Your task to perform on an android device: turn notification dots off Image 0: 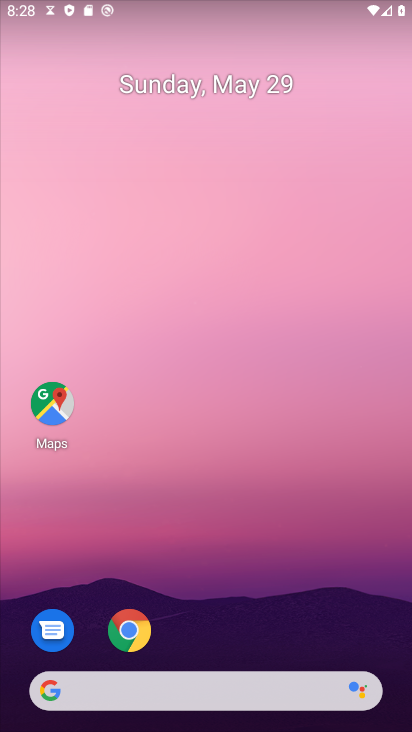
Step 0: drag from (238, 647) to (288, 57)
Your task to perform on an android device: turn notification dots off Image 1: 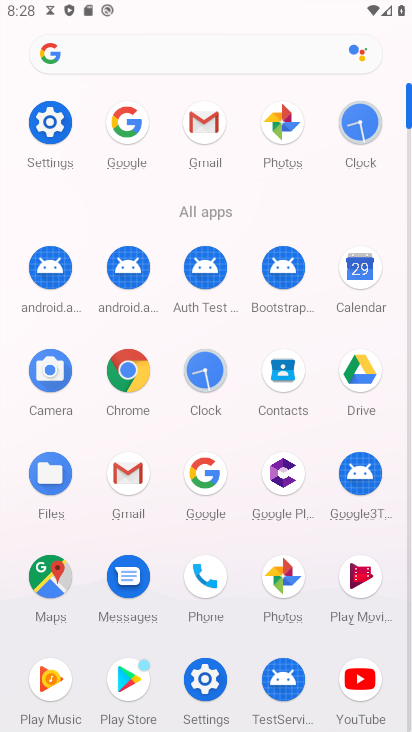
Step 1: click (53, 127)
Your task to perform on an android device: turn notification dots off Image 2: 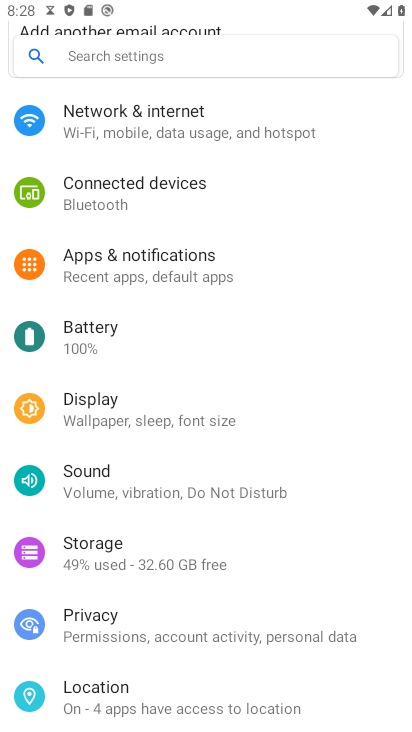
Step 2: click (112, 255)
Your task to perform on an android device: turn notification dots off Image 3: 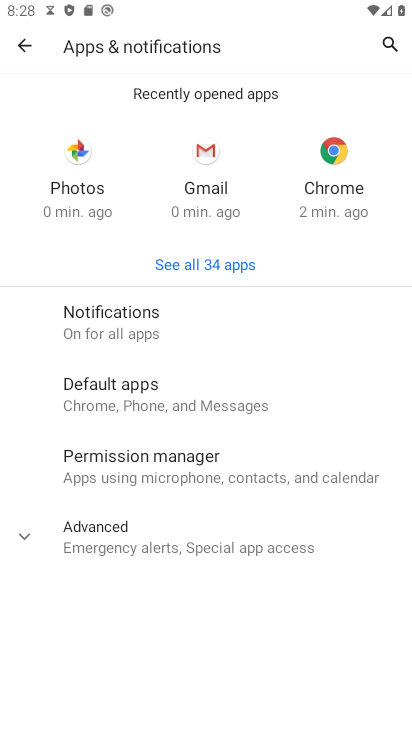
Step 3: click (174, 320)
Your task to perform on an android device: turn notification dots off Image 4: 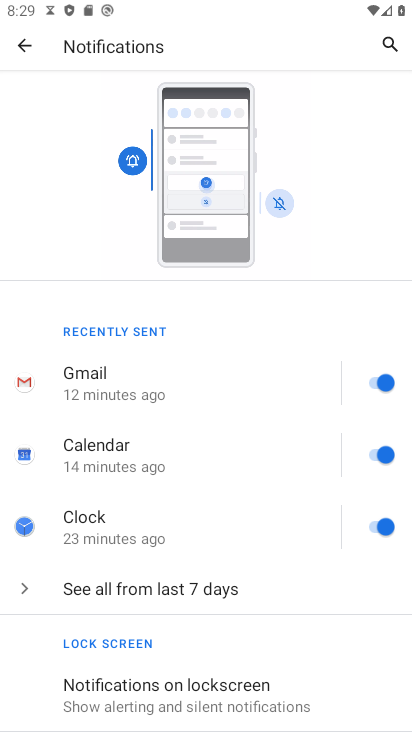
Step 4: drag from (323, 612) to (279, 232)
Your task to perform on an android device: turn notification dots off Image 5: 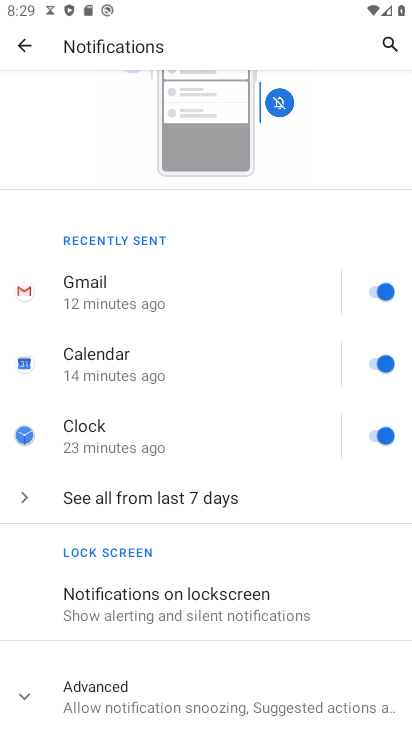
Step 5: click (218, 705)
Your task to perform on an android device: turn notification dots off Image 6: 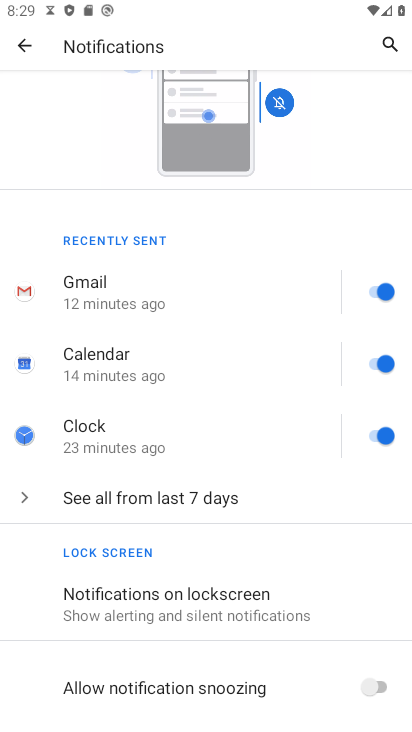
Step 6: drag from (290, 631) to (280, 295)
Your task to perform on an android device: turn notification dots off Image 7: 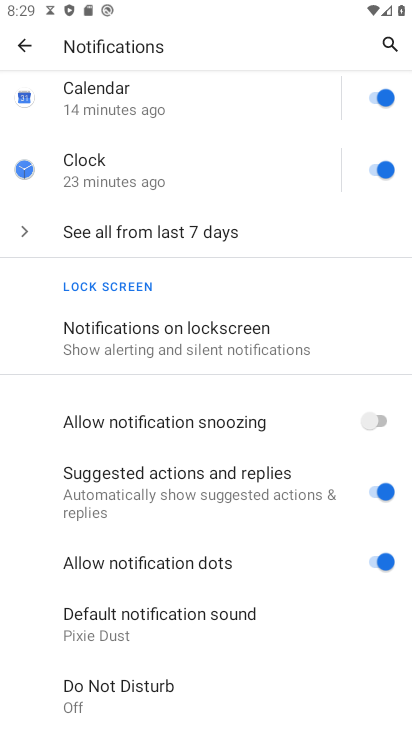
Step 7: click (379, 563)
Your task to perform on an android device: turn notification dots off Image 8: 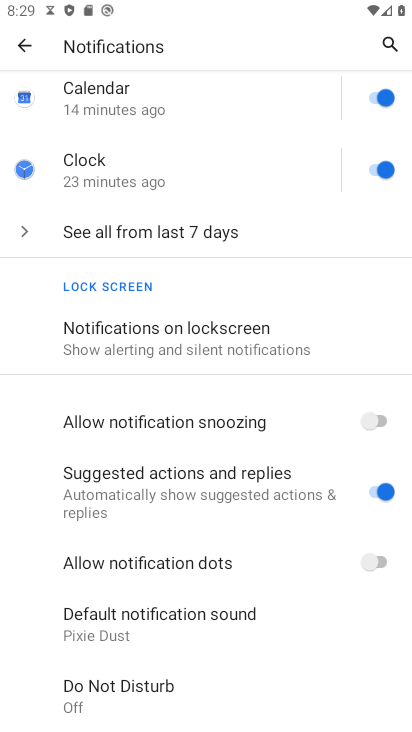
Step 8: task complete